Your task to perform on an android device: change alarm snooze length Image 0: 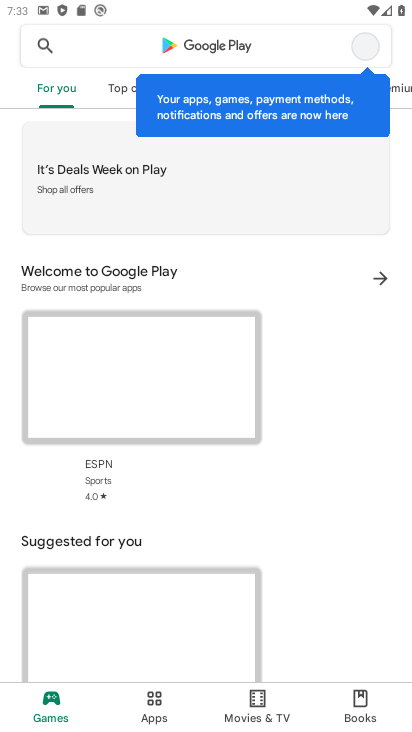
Step 0: press home button
Your task to perform on an android device: change alarm snooze length Image 1: 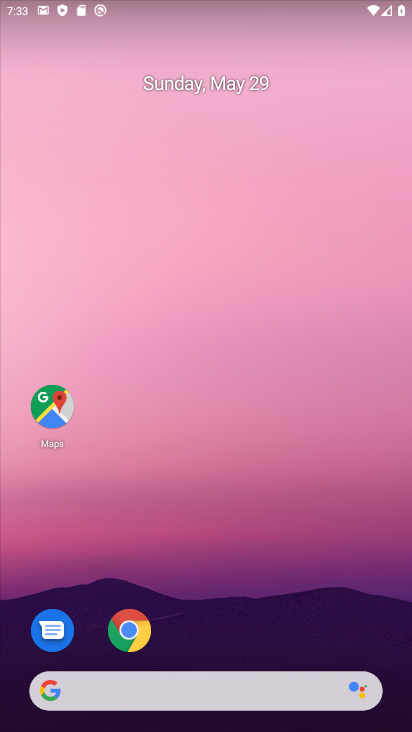
Step 1: drag from (245, 567) to (242, 14)
Your task to perform on an android device: change alarm snooze length Image 2: 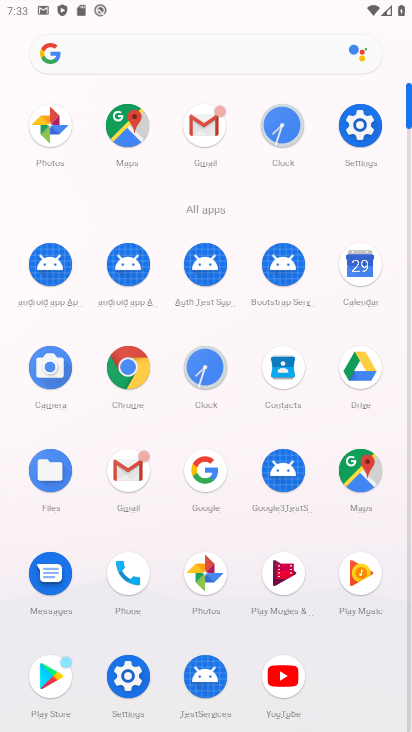
Step 2: click (207, 361)
Your task to perform on an android device: change alarm snooze length Image 3: 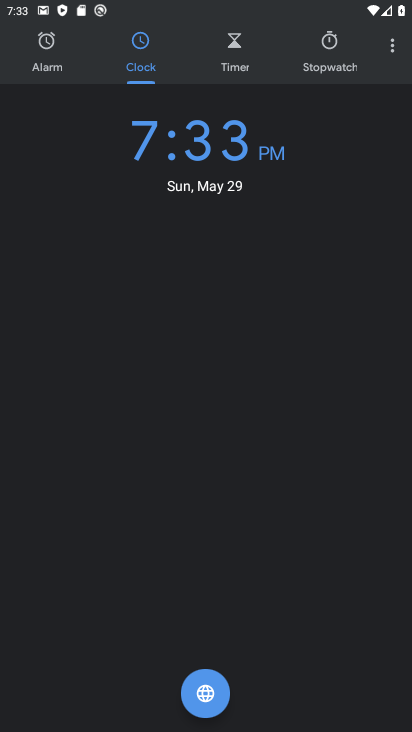
Step 3: click (377, 55)
Your task to perform on an android device: change alarm snooze length Image 4: 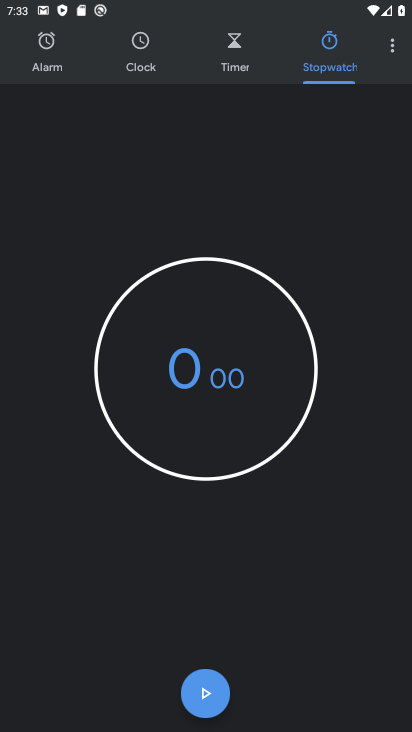
Step 4: click (380, 54)
Your task to perform on an android device: change alarm snooze length Image 5: 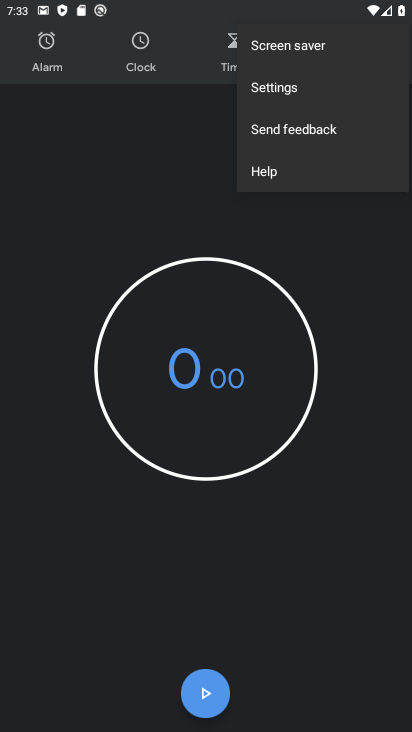
Step 5: click (302, 95)
Your task to perform on an android device: change alarm snooze length Image 6: 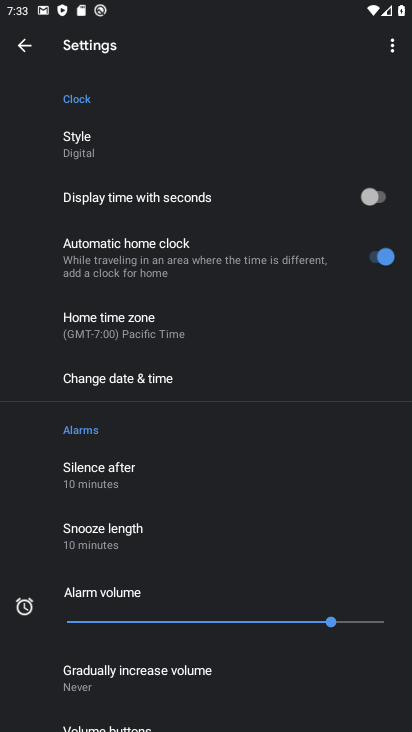
Step 6: click (146, 526)
Your task to perform on an android device: change alarm snooze length Image 7: 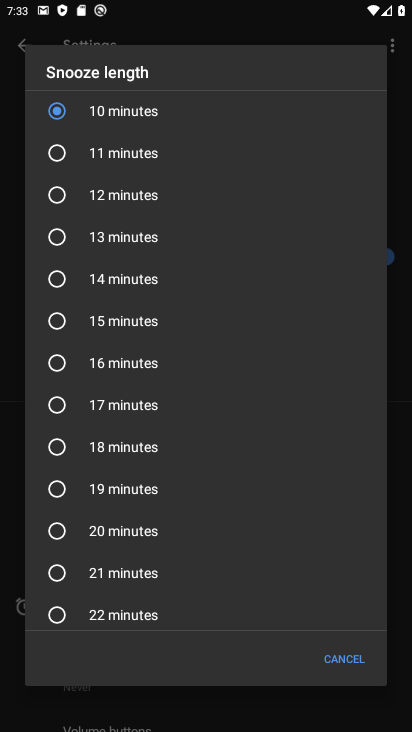
Step 7: click (102, 317)
Your task to perform on an android device: change alarm snooze length Image 8: 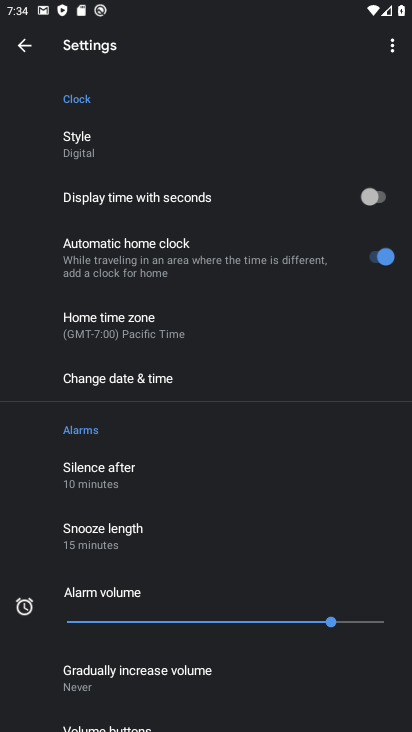
Step 8: task complete